Your task to perform on an android device: open app "Adobe Express: Graphic Design" (install if not already installed) and enter user name: "deliveries@gmail.com" and password: "regimentation" Image 0: 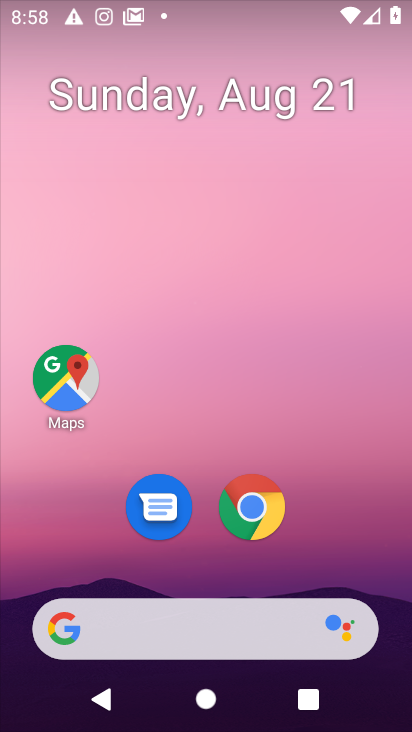
Step 0: drag from (159, 376) to (5, 149)
Your task to perform on an android device: open app "Adobe Express: Graphic Design" (install if not already installed) and enter user name: "deliveries@gmail.com" and password: "regimentation" Image 1: 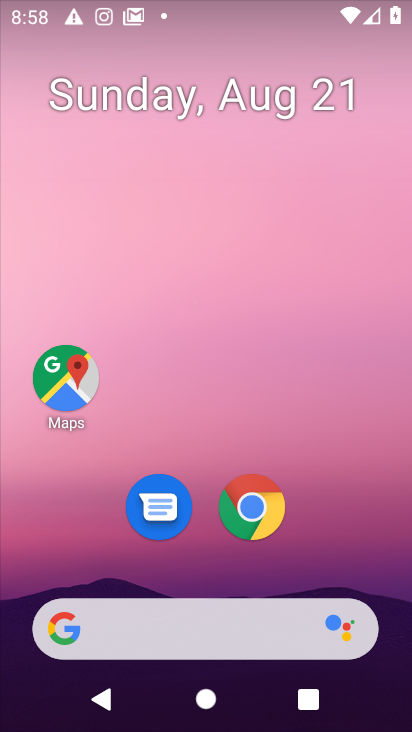
Step 1: drag from (179, 418) to (153, 37)
Your task to perform on an android device: open app "Adobe Express: Graphic Design" (install if not already installed) and enter user name: "deliveries@gmail.com" and password: "regimentation" Image 2: 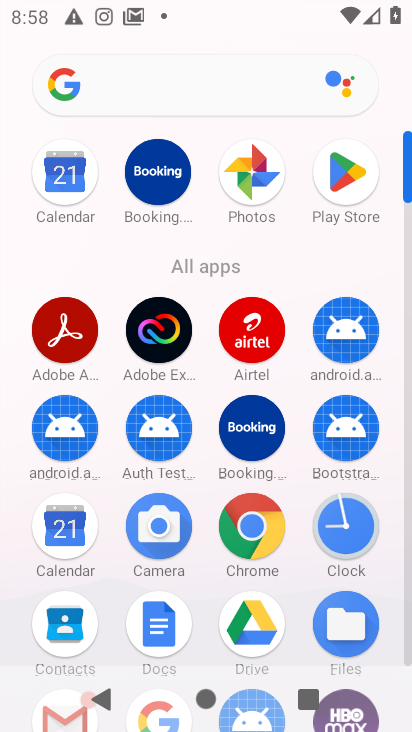
Step 2: click (328, 180)
Your task to perform on an android device: open app "Adobe Express: Graphic Design" (install if not already installed) and enter user name: "deliveries@gmail.com" and password: "regimentation" Image 3: 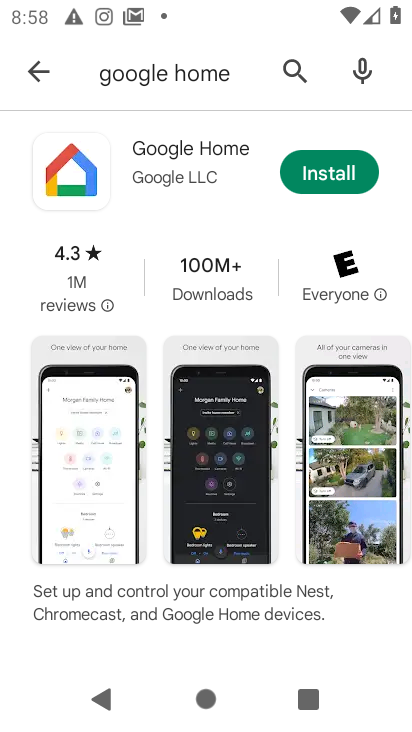
Step 3: click (38, 70)
Your task to perform on an android device: open app "Adobe Express: Graphic Design" (install if not already installed) and enter user name: "deliveries@gmail.com" and password: "regimentation" Image 4: 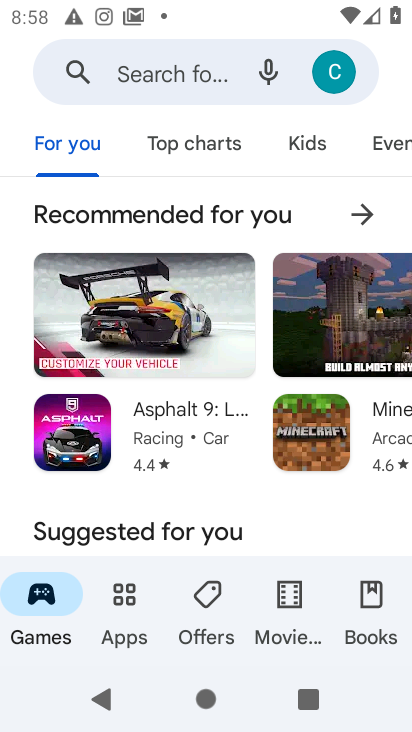
Step 4: click (178, 66)
Your task to perform on an android device: open app "Adobe Express: Graphic Design" (install if not already installed) and enter user name: "deliveries@gmail.com" and password: "regimentation" Image 5: 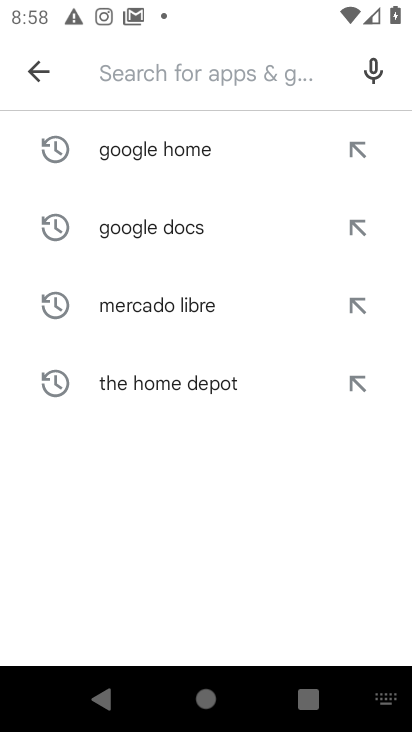
Step 5: type "Adobe Express: Graphic Design"
Your task to perform on an android device: open app "Adobe Express: Graphic Design" (install if not already installed) and enter user name: "deliveries@gmail.com" and password: "regimentation" Image 6: 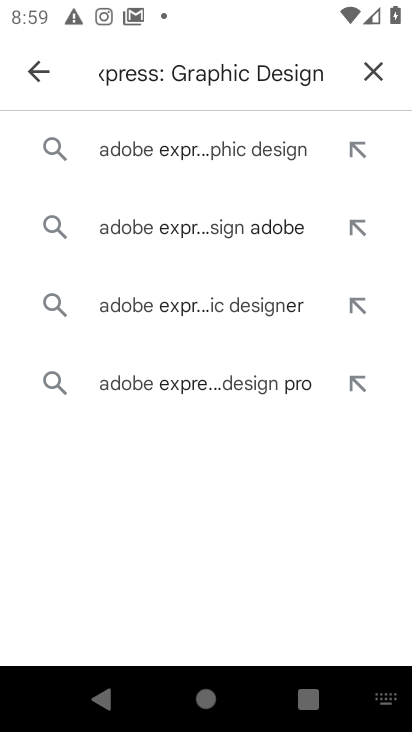
Step 6: click (176, 148)
Your task to perform on an android device: open app "Adobe Express: Graphic Design" (install if not already installed) and enter user name: "deliveries@gmail.com" and password: "regimentation" Image 7: 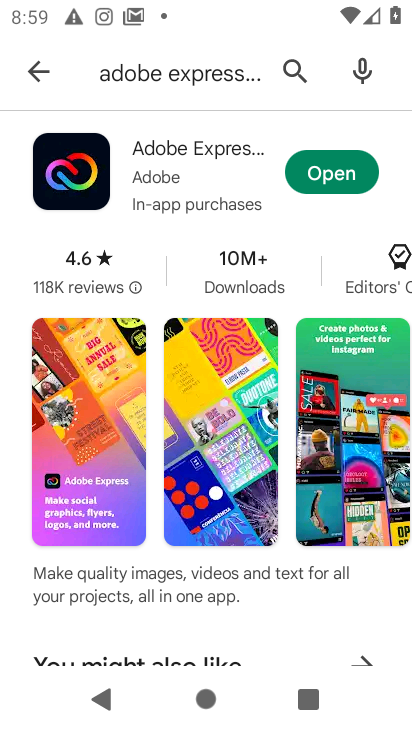
Step 7: click (320, 156)
Your task to perform on an android device: open app "Adobe Express: Graphic Design" (install if not already installed) and enter user name: "deliveries@gmail.com" and password: "regimentation" Image 8: 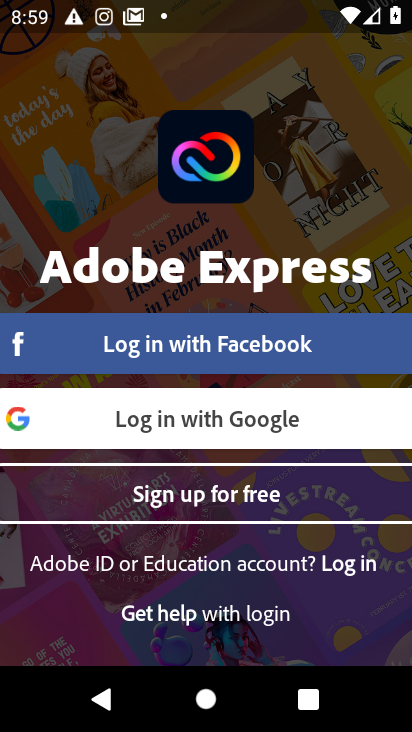
Step 8: click (270, 616)
Your task to perform on an android device: open app "Adobe Express: Graphic Design" (install if not already installed) and enter user name: "deliveries@gmail.com" and password: "regimentation" Image 9: 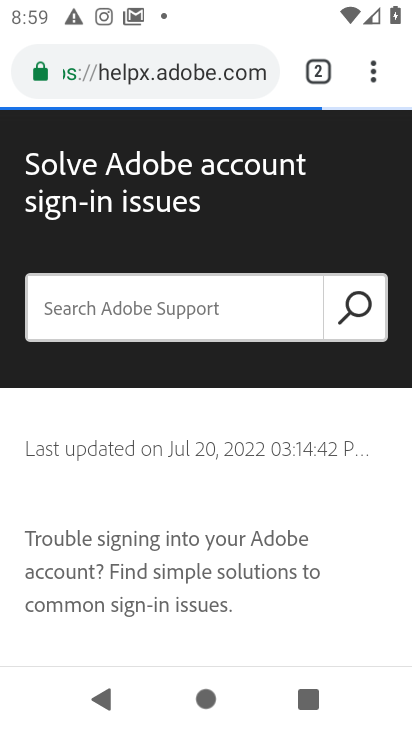
Step 9: press back button
Your task to perform on an android device: open app "Adobe Express: Graphic Design" (install if not already installed) and enter user name: "deliveries@gmail.com" and password: "regimentation" Image 10: 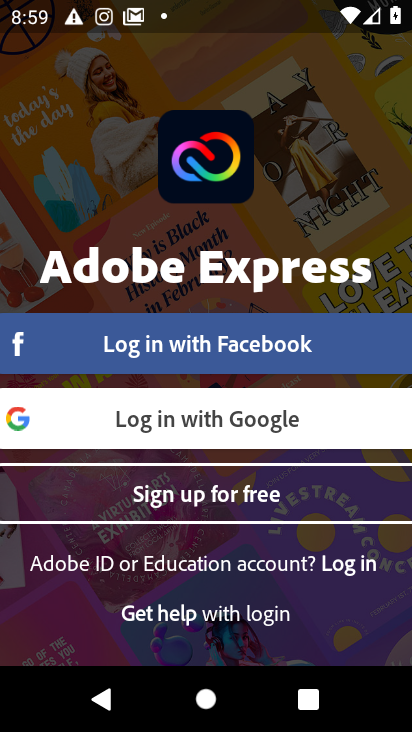
Step 10: click (354, 568)
Your task to perform on an android device: open app "Adobe Express: Graphic Design" (install if not already installed) and enter user name: "deliveries@gmail.com" and password: "regimentation" Image 11: 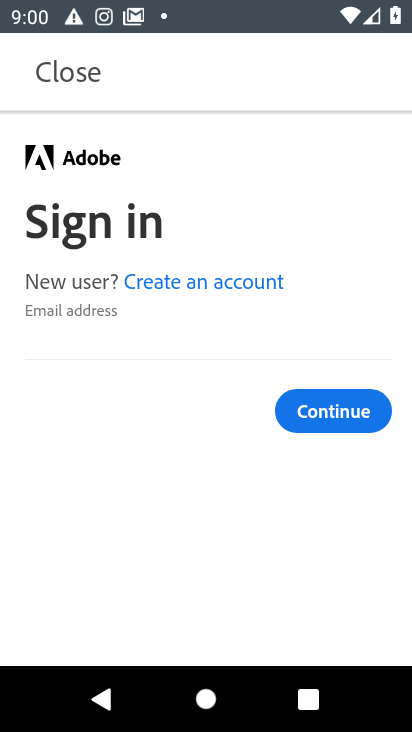
Step 11: click (83, 326)
Your task to perform on an android device: open app "Adobe Express: Graphic Design" (install if not already installed) and enter user name: "deliveries@gmail.com" and password: "regimentation" Image 12: 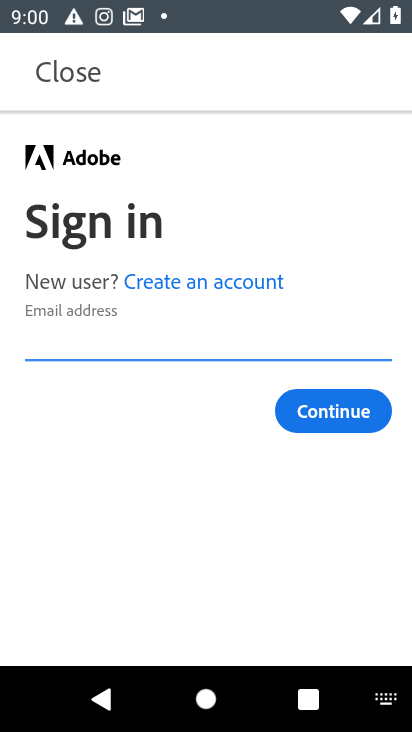
Step 12: type "deliveries@gmail.com"
Your task to perform on an android device: open app "Adobe Express: Graphic Design" (install if not already installed) and enter user name: "deliveries@gmail.com" and password: "regimentation" Image 13: 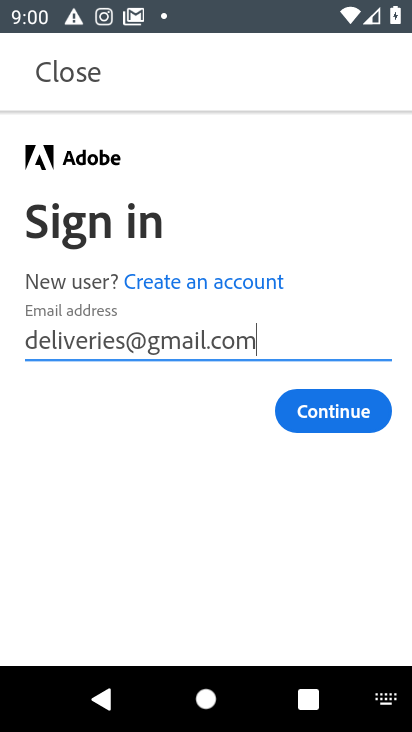
Step 13: click (299, 403)
Your task to perform on an android device: open app "Adobe Express: Graphic Design" (install if not already installed) and enter user name: "deliveries@gmail.com" and password: "regimentation" Image 14: 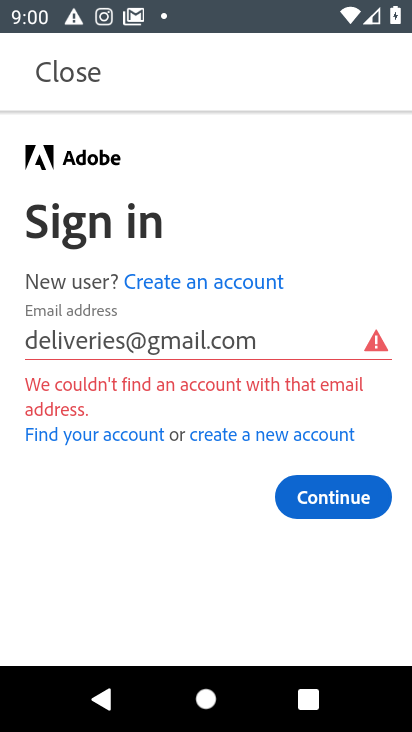
Step 14: task complete